Your task to perform on an android device: see sites visited before in the chrome app Image 0: 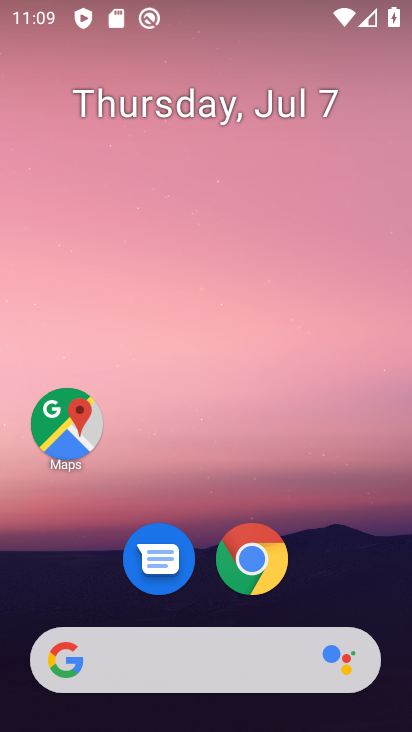
Step 0: drag from (366, 585) to (365, 162)
Your task to perform on an android device: see sites visited before in the chrome app Image 1: 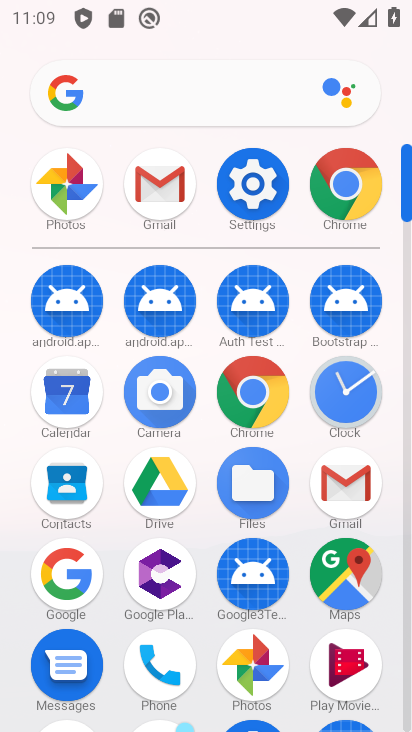
Step 1: click (266, 392)
Your task to perform on an android device: see sites visited before in the chrome app Image 2: 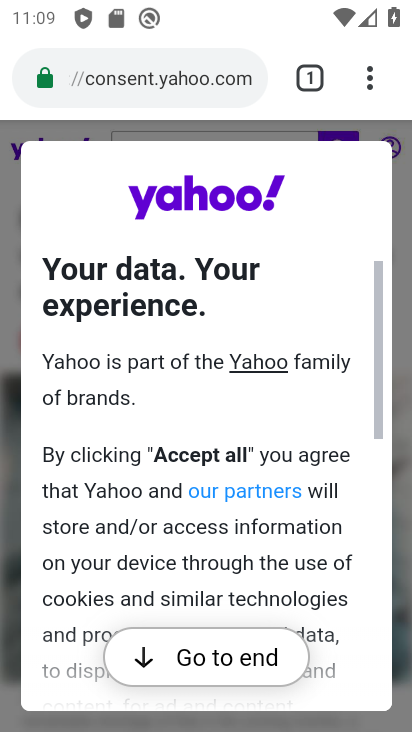
Step 2: click (371, 83)
Your task to perform on an android device: see sites visited before in the chrome app Image 3: 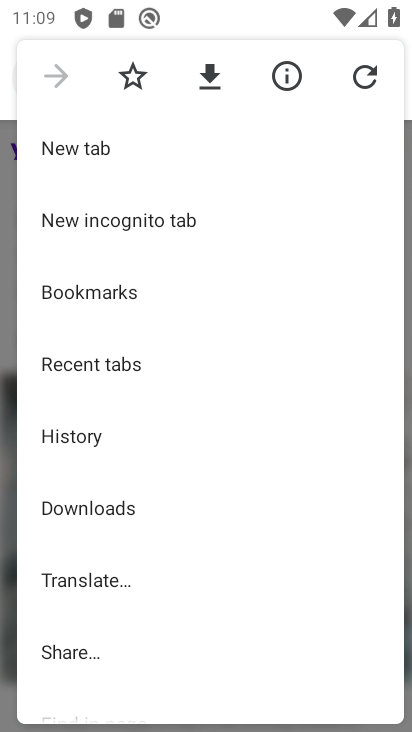
Step 3: drag from (266, 473) to (279, 332)
Your task to perform on an android device: see sites visited before in the chrome app Image 4: 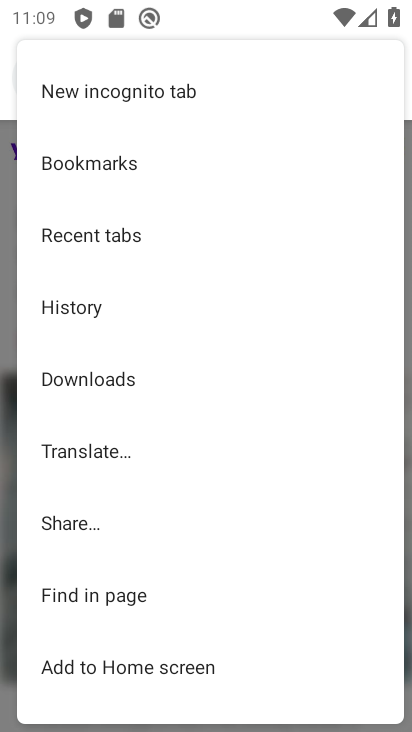
Step 4: drag from (292, 510) to (295, 364)
Your task to perform on an android device: see sites visited before in the chrome app Image 5: 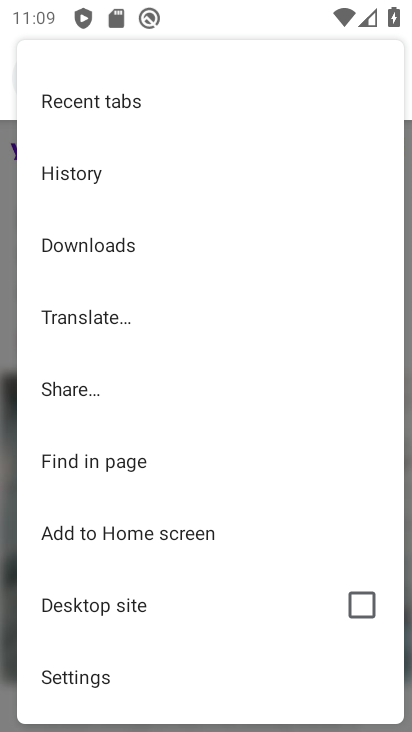
Step 5: drag from (277, 548) to (275, 342)
Your task to perform on an android device: see sites visited before in the chrome app Image 6: 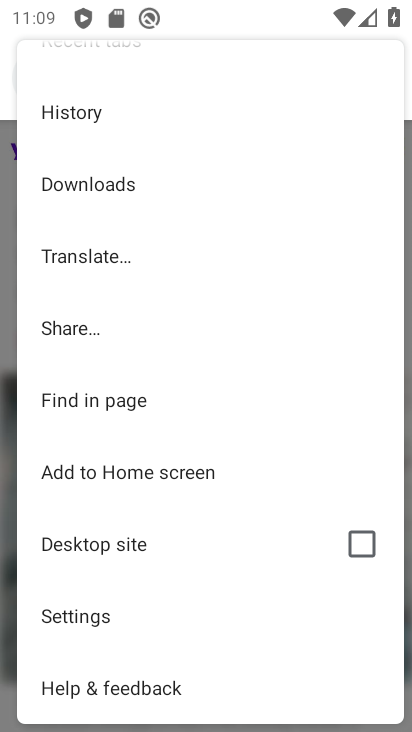
Step 6: drag from (259, 215) to (260, 354)
Your task to perform on an android device: see sites visited before in the chrome app Image 7: 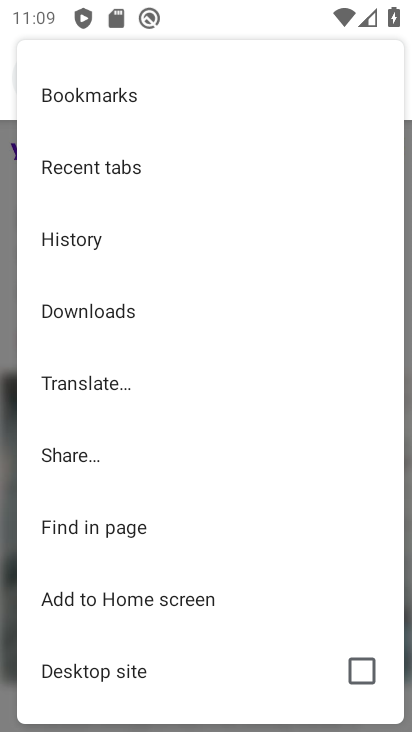
Step 7: drag from (268, 160) to (271, 416)
Your task to perform on an android device: see sites visited before in the chrome app Image 8: 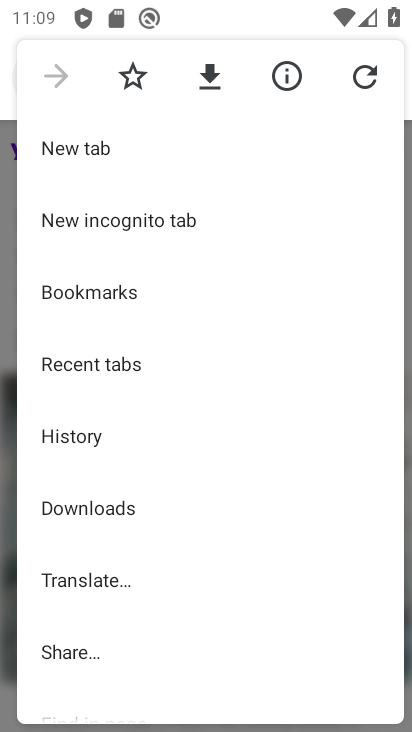
Step 8: click (130, 442)
Your task to perform on an android device: see sites visited before in the chrome app Image 9: 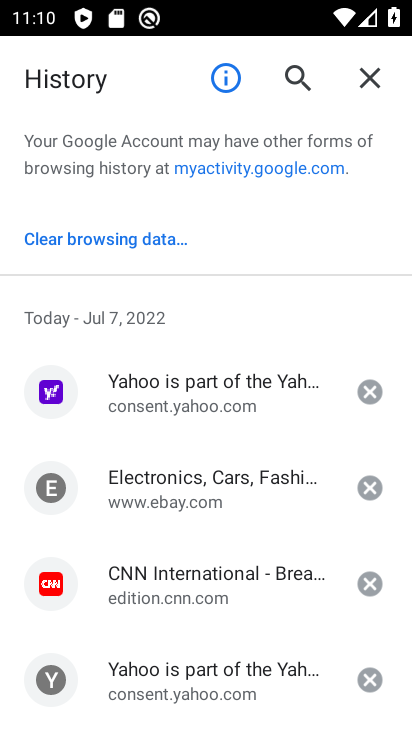
Step 9: task complete